Your task to perform on an android device: Is it going to rain this weekend? Image 0: 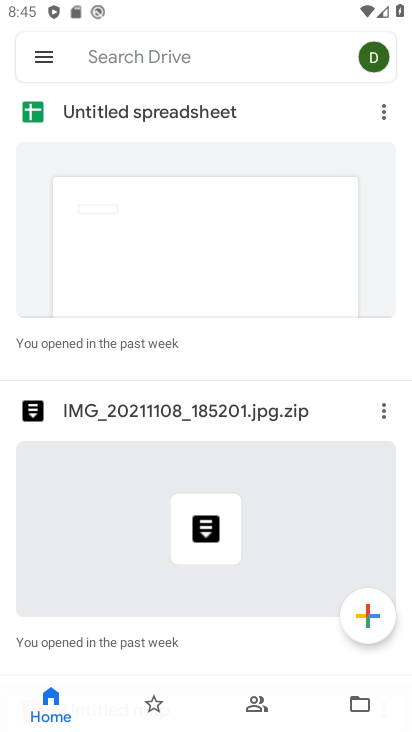
Step 0: press home button
Your task to perform on an android device: Is it going to rain this weekend? Image 1: 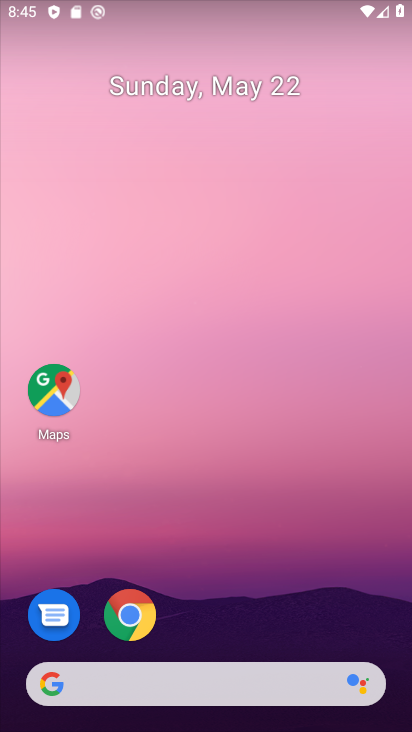
Step 1: click (134, 610)
Your task to perform on an android device: Is it going to rain this weekend? Image 2: 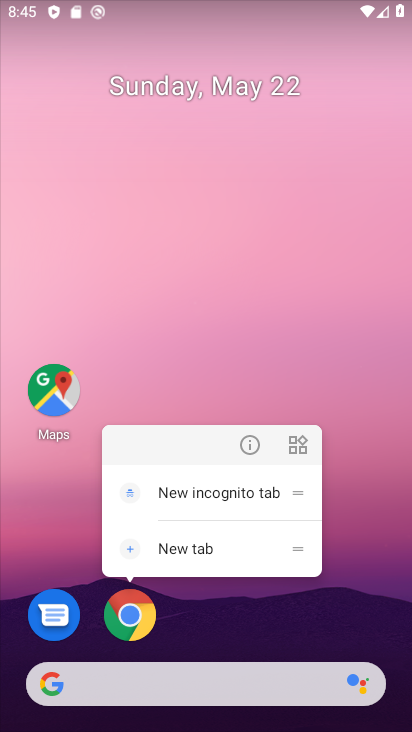
Step 2: click (131, 607)
Your task to perform on an android device: Is it going to rain this weekend? Image 3: 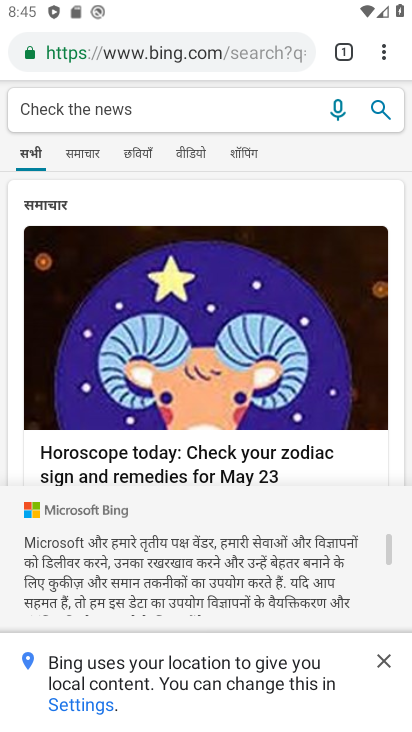
Step 3: click (376, 60)
Your task to perform on an android device: Is it going to rain this weekend? Image 4: 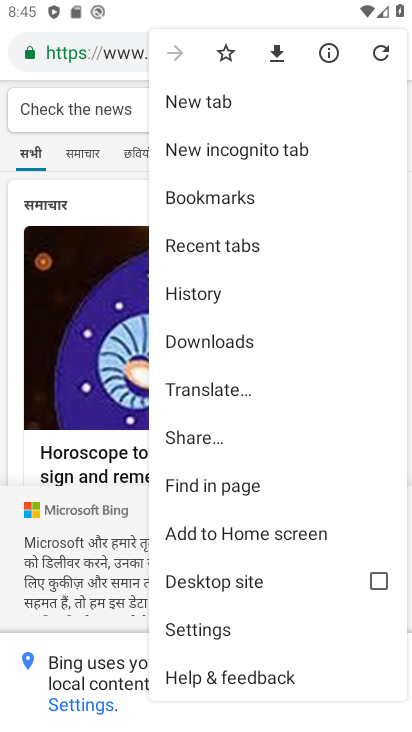
Step 4: click (384, 50)
Your task to perform on an android device: Is it going to rain this weekend? Image 5: 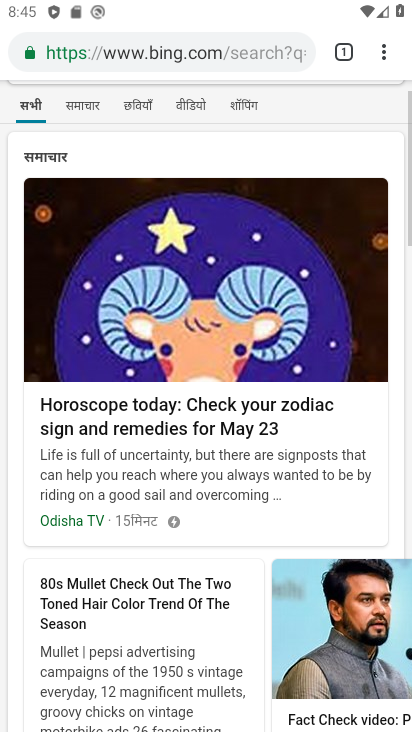
Step 5: click (247, 105)
Your task to perform on an android device: Is it going to rain this weekend? Image 6: 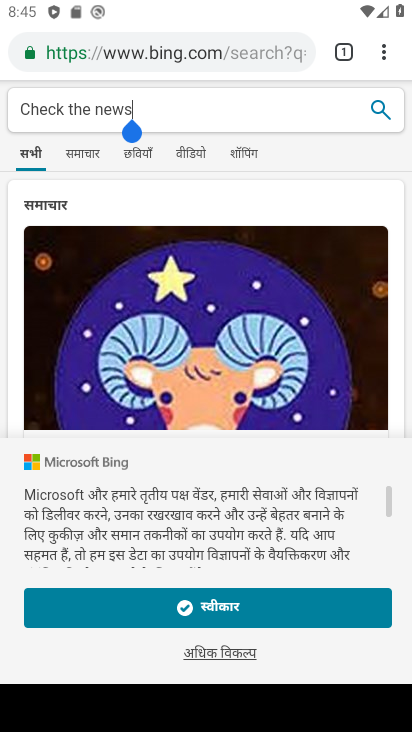
Step 6: click (383, 59)
Your task to perform on an android device: Is it going to rain this weekend? Image 7: 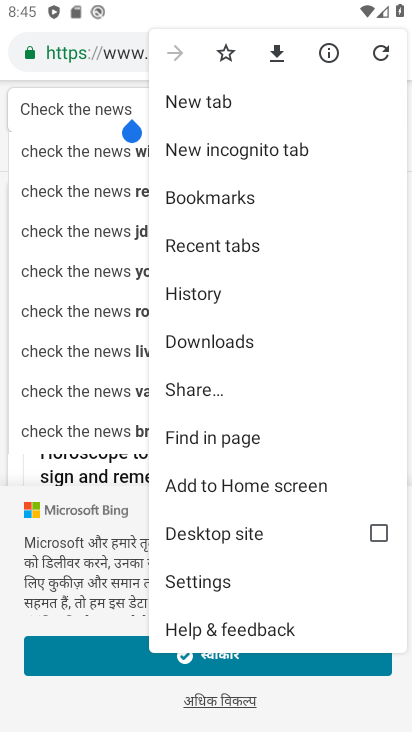
Step 7: click (218, 98)
Your task to perform on an android device: Is it going to rain this weekend? Image 8: 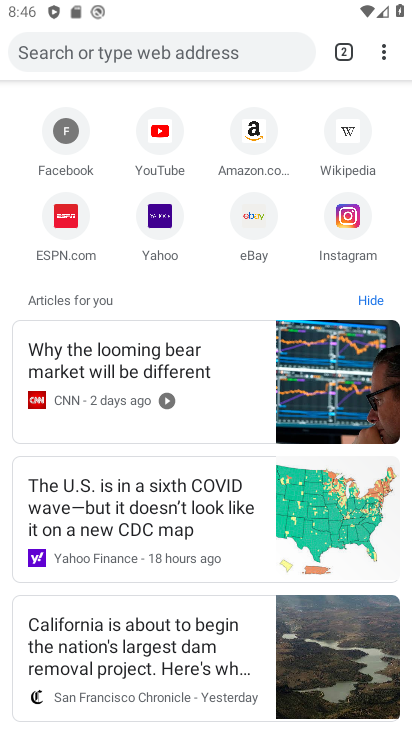
Step 8: click (190, 41)
Your task to perform on an android device: Is it going to rain this weekend? Image 9: 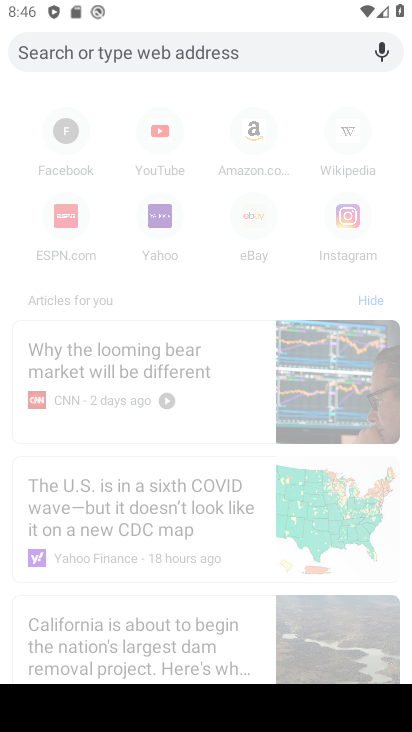
Step 9: type "Is it going to rain this weekend?"
Your task to perform on an android device: Is it going to rain this weekend? Image 10: 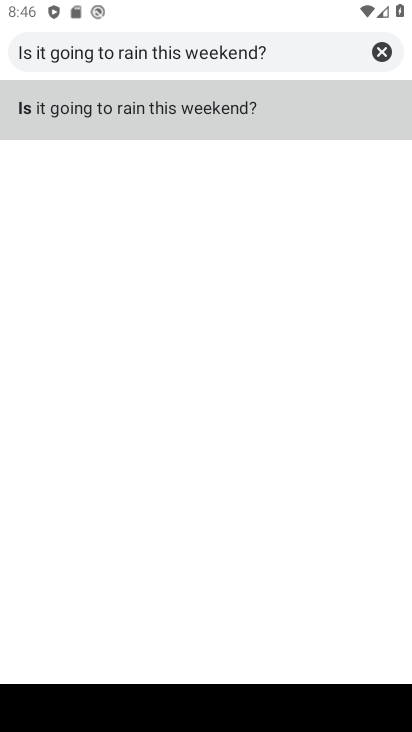
Step 10: click (228, 119)
Your task to perform on an android device: Is it going to rain this weekend? Image 11: 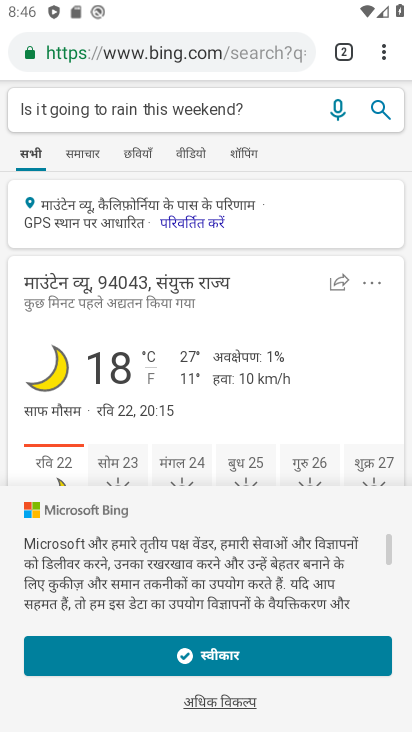
Step 11: task complete